Your task to perform on an android device: Go to location settings Image 0: 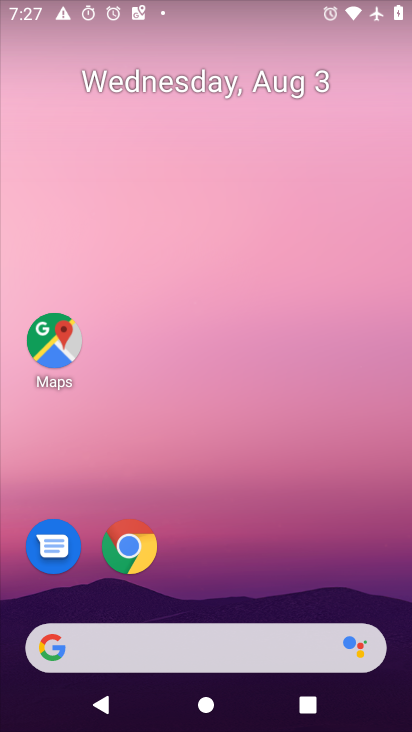
Step 0: press home button
Your task to perform on an android device: Go to location settings Image 1: 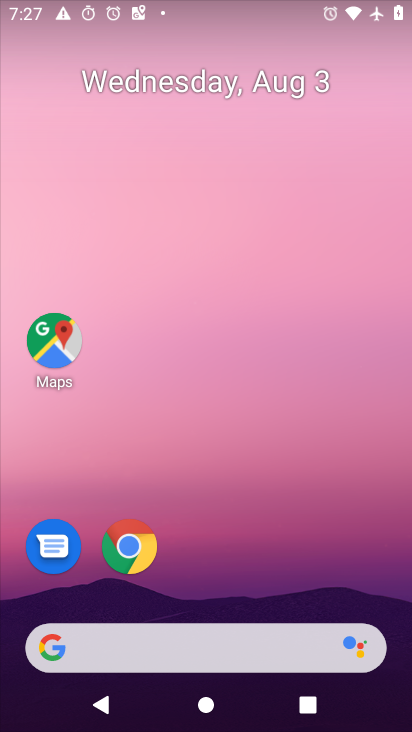
Step 1: drag from (257, 586) to (353, 237)
Your task to perform on an android device: Go to location settings Image 2: 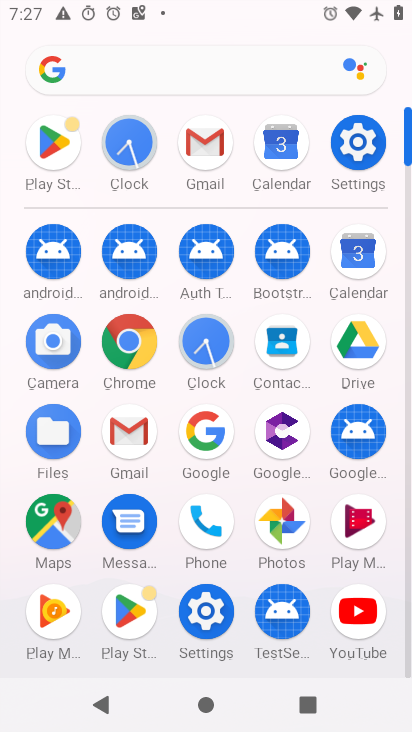
Step 2: click (362, 140)
Your task to perform on an android device: Go to location settings Image 3: 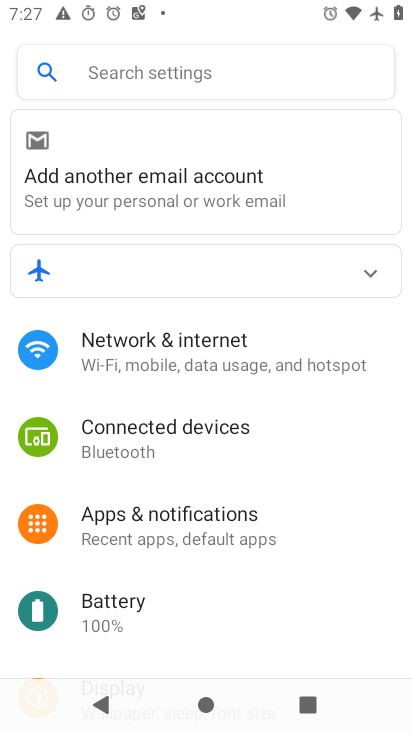
Step 3: task complete